Your task to perform on an android device: How do I get to the nearest Chipotle? Image 0: 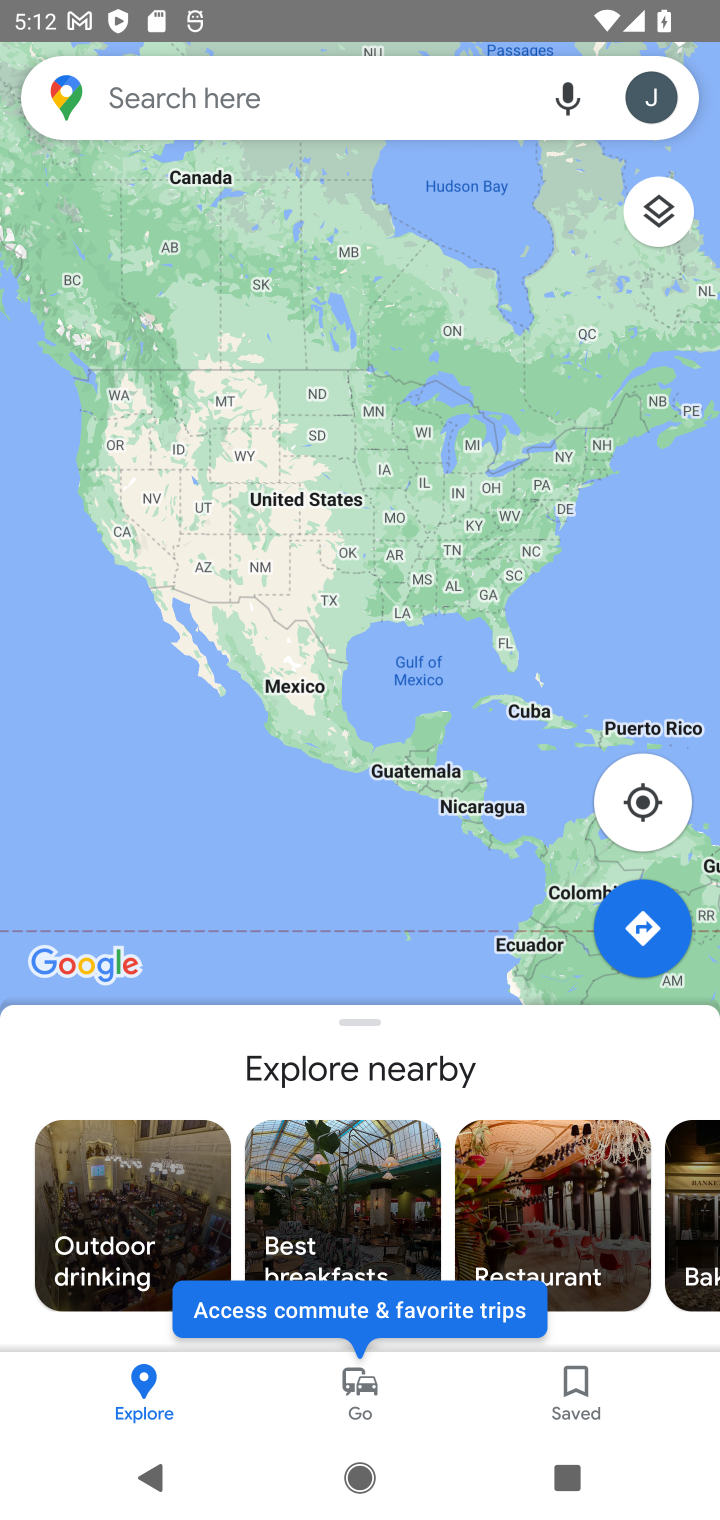
Step 0: press home button
Your task to perform on an android device: How do I get to the nearest Chipotle? Image 1: 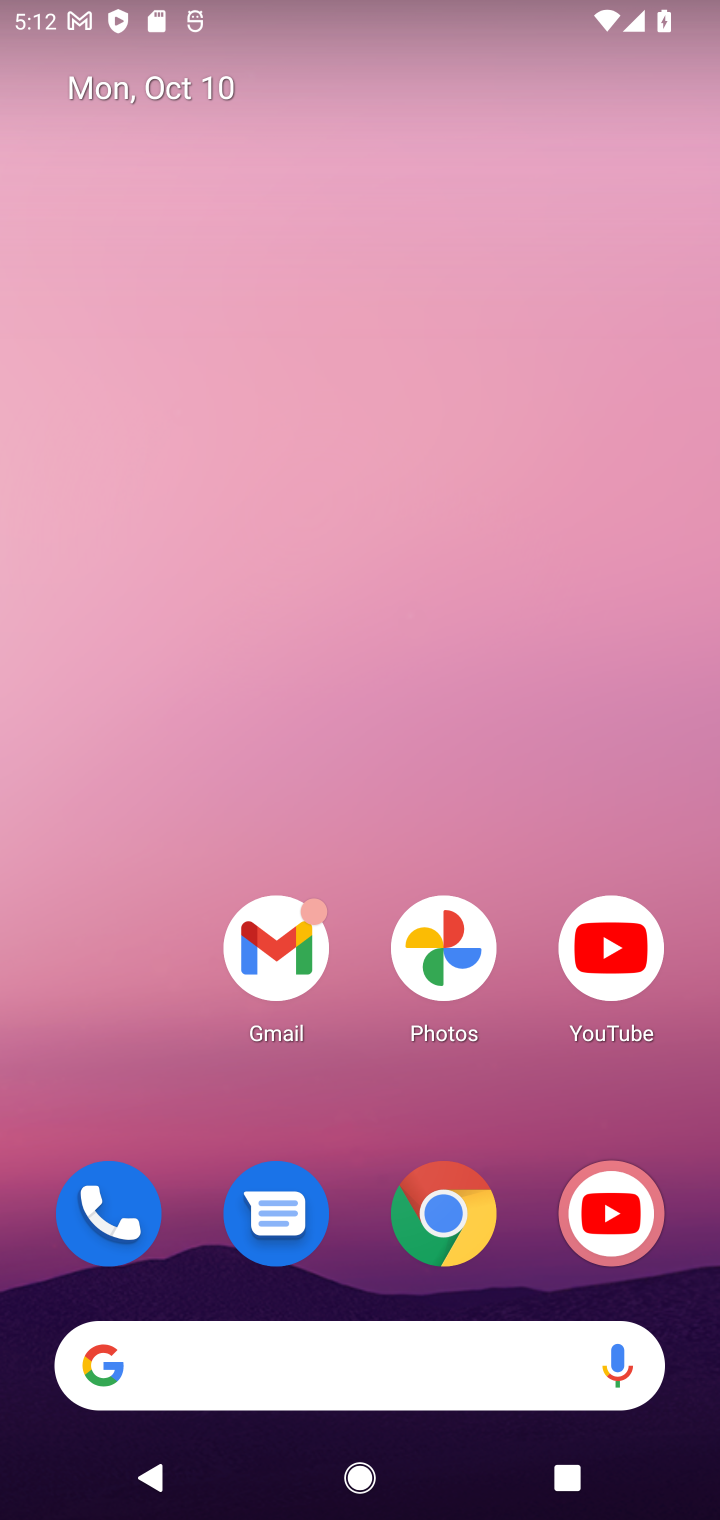
Step 1: drag from (238, 1091) to (452, 165)
Your task to perform on an android device: How do I get to the nearest Chipotle? Image 2: 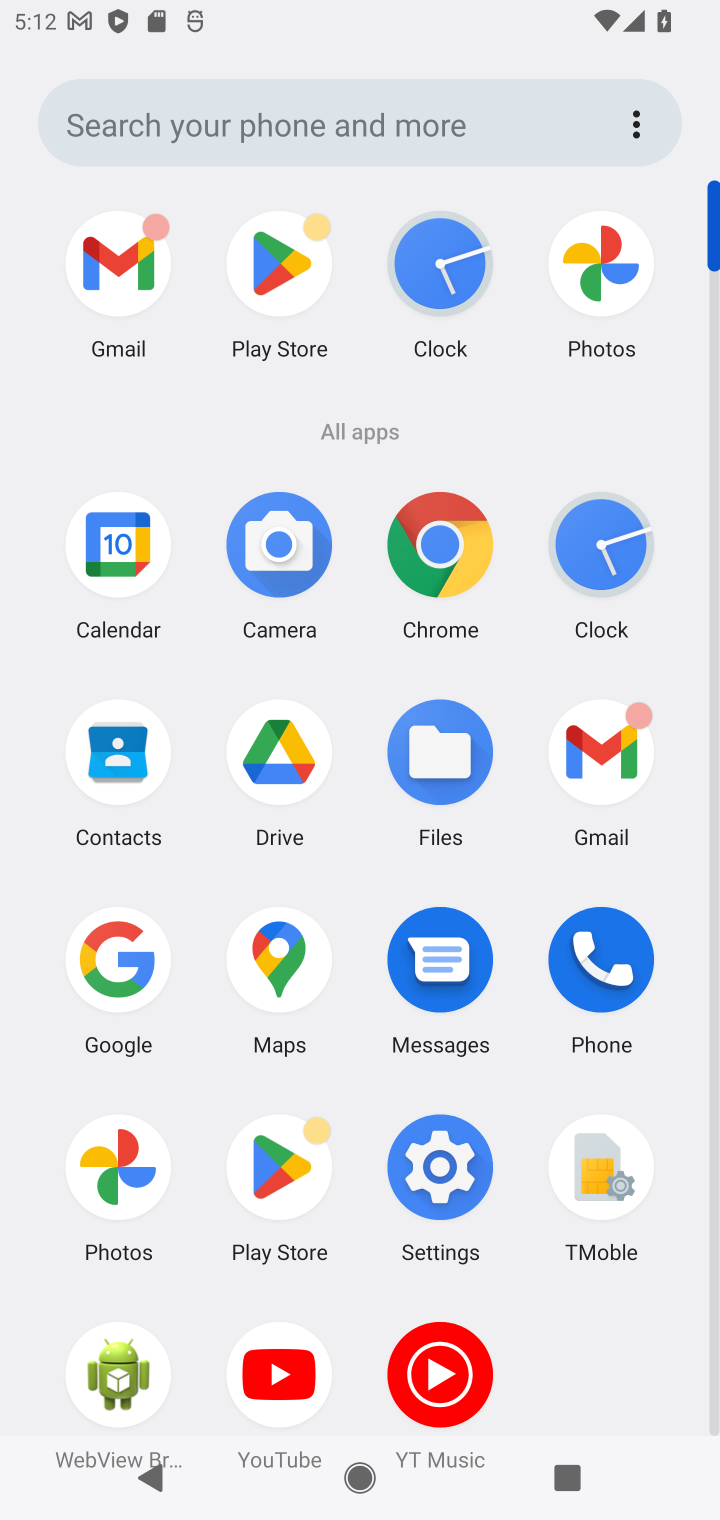
Step 2: click (127, 953)
Your task to perform on an android device: How do I get to the nearest Chipotle? Image 3: 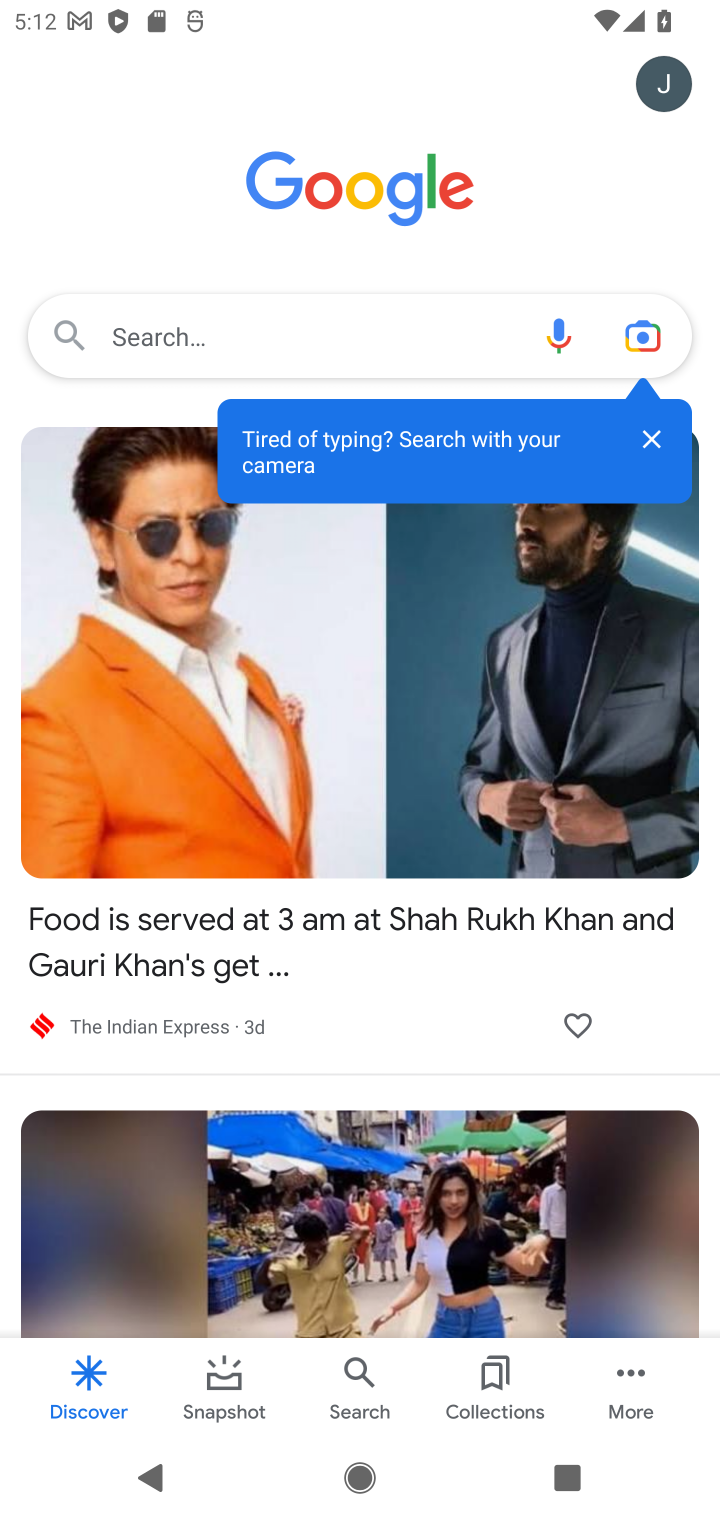
Step 3: click (146, 313)
Your task to perform on an android device: How do I get to the nearest Chipotle? Image 4: 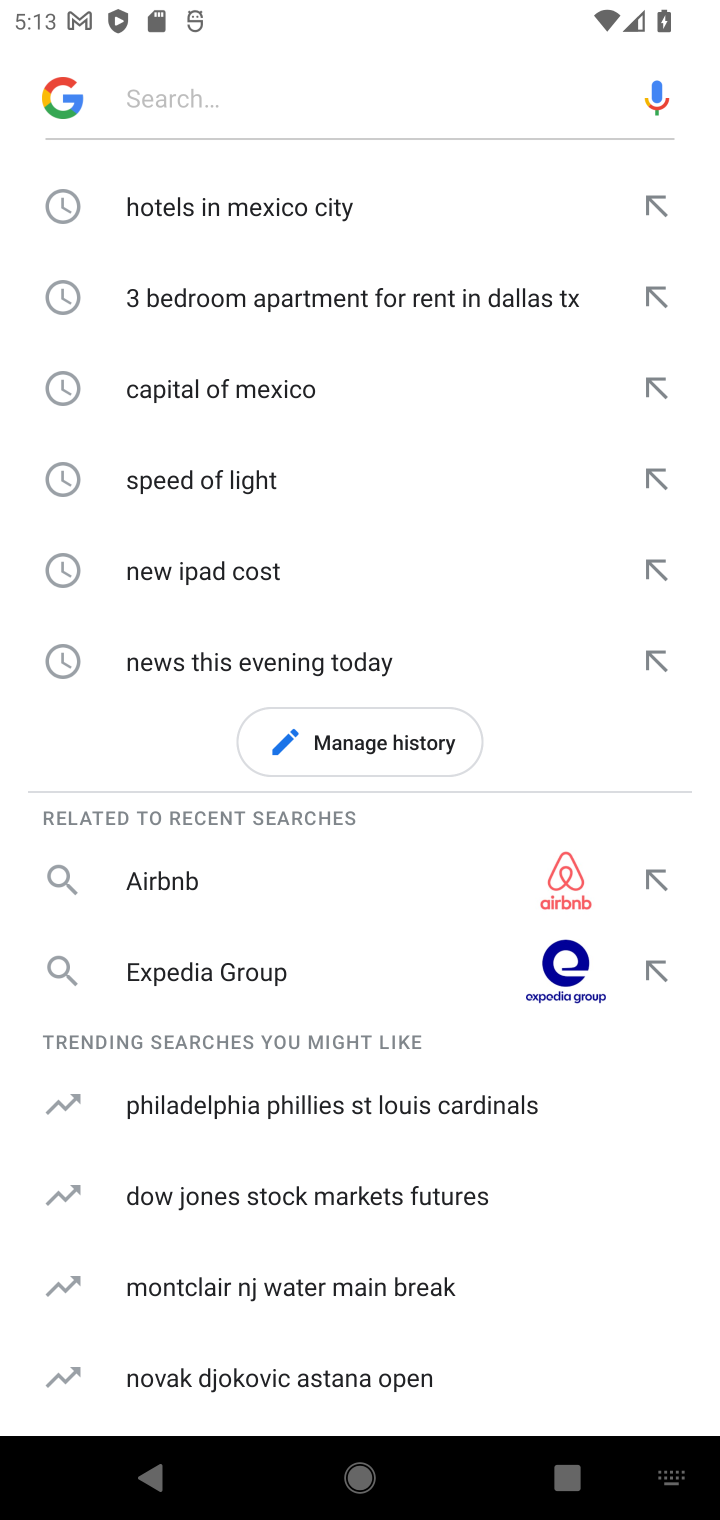
Step 4: click (218, 89)
Your task to perform on an android device: How do I get to the nearest Chipotle? Image 5: 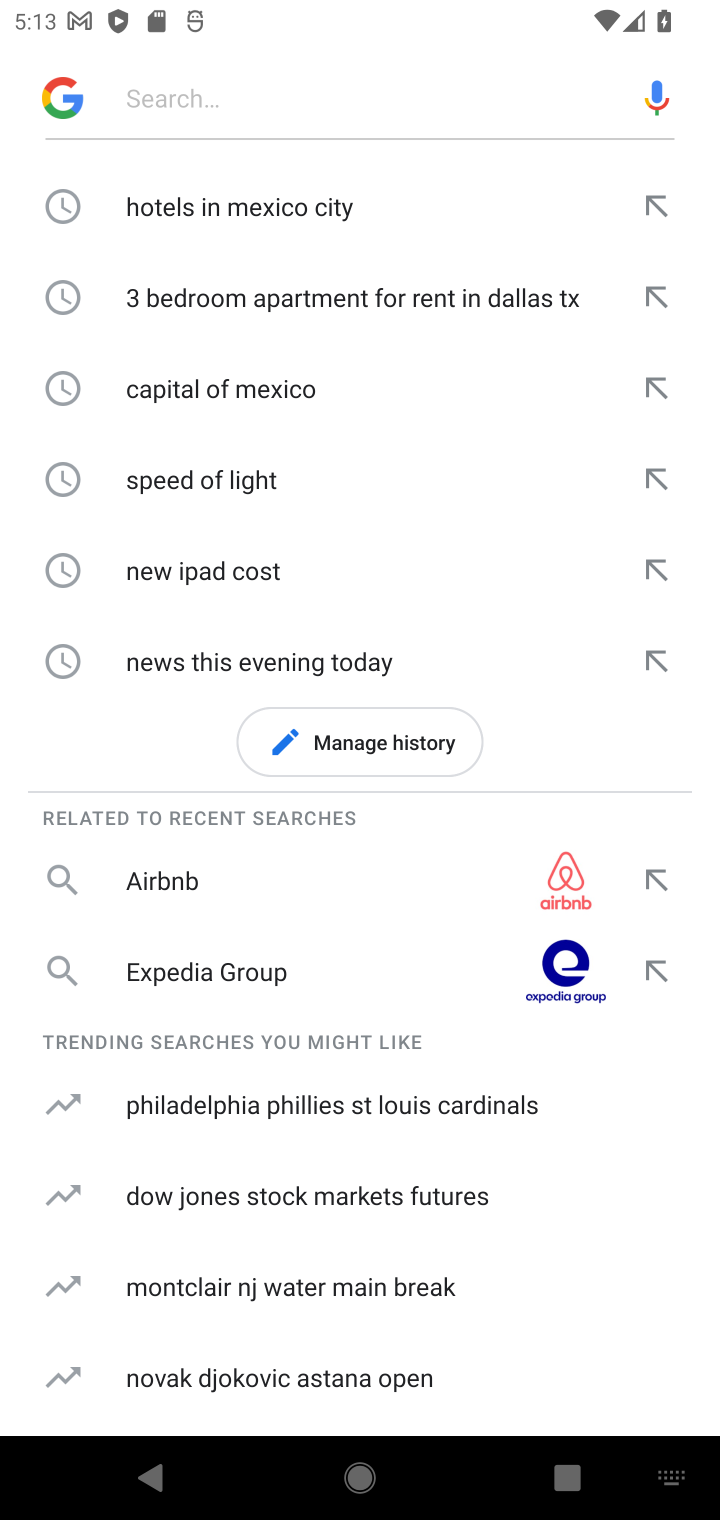
Step 5: type "How do I get to the nearest Chipotle?"
Your task to perform on an android device: How do I get to the nearest Chipotle? Image 6: 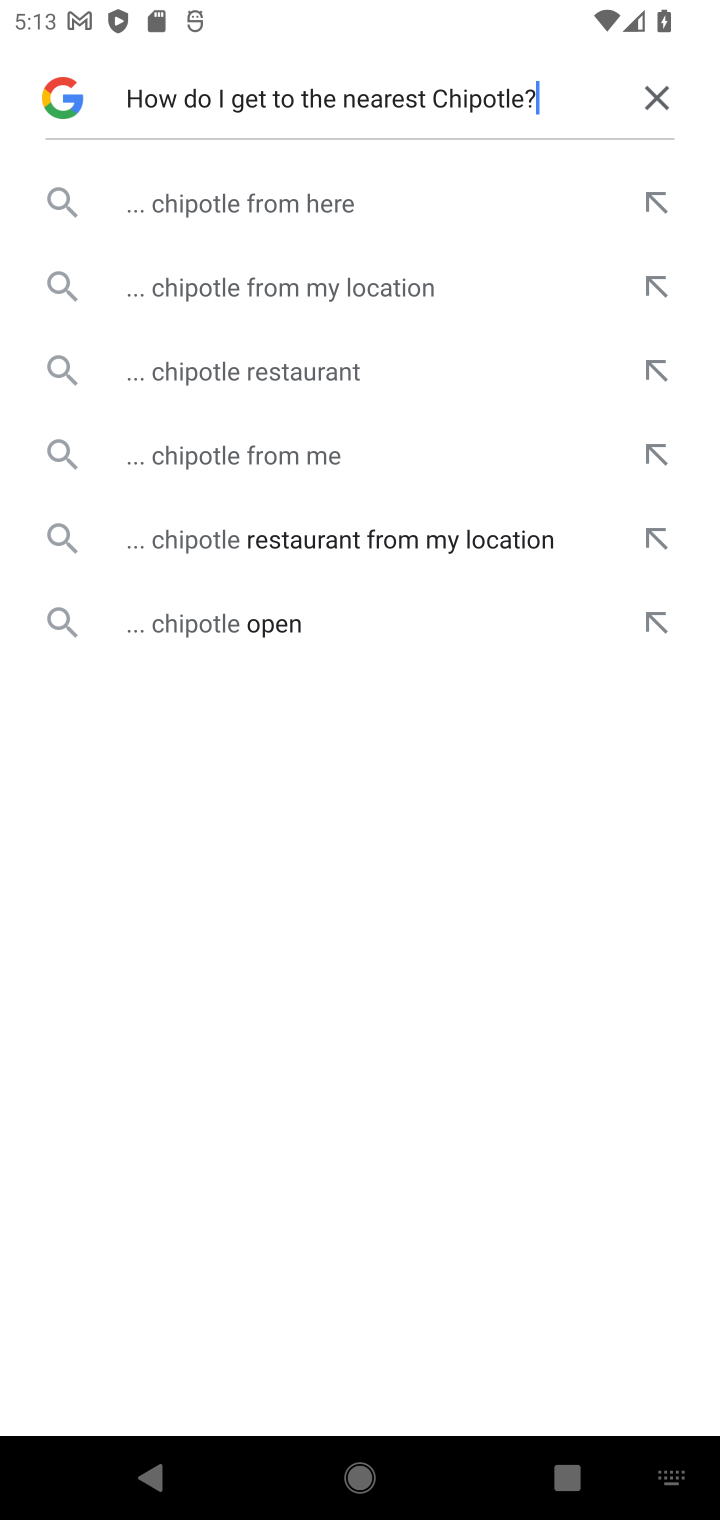
Step 6: click (420, 197)
Your task to perform on an android device: How do I get to the nearest Chipotle? Image 7: 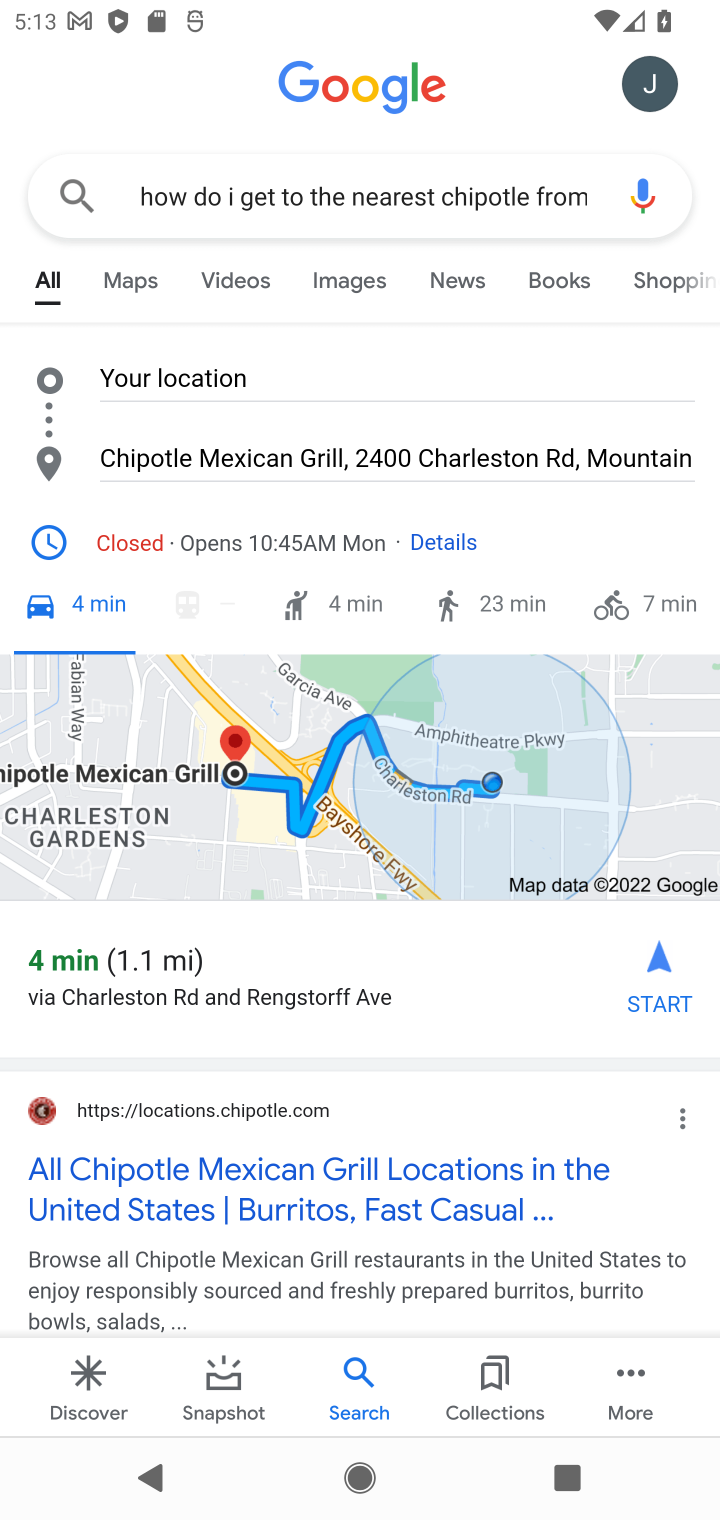
Step 7: task complete